Your task to perform on an android device: Do I have any events today? Image 0: 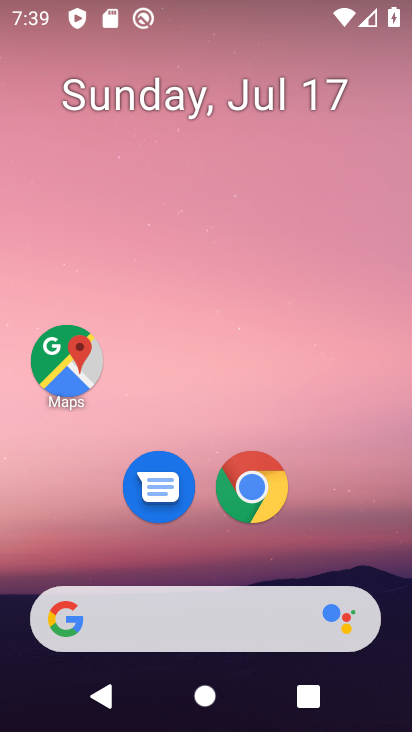
Step 0: drag from (175, 536) to (268, 39)
Your task to perform on an android device: Do I have any events today? Image 1: 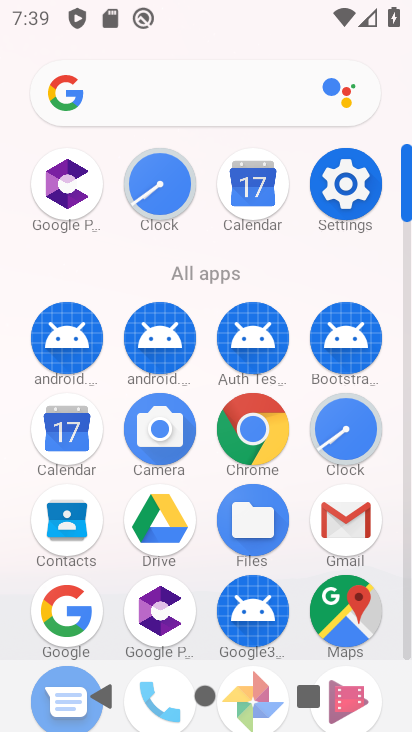
Step 1: click (76, 424)
Your task to perform on an android device: Do I have any events today? Image 2: 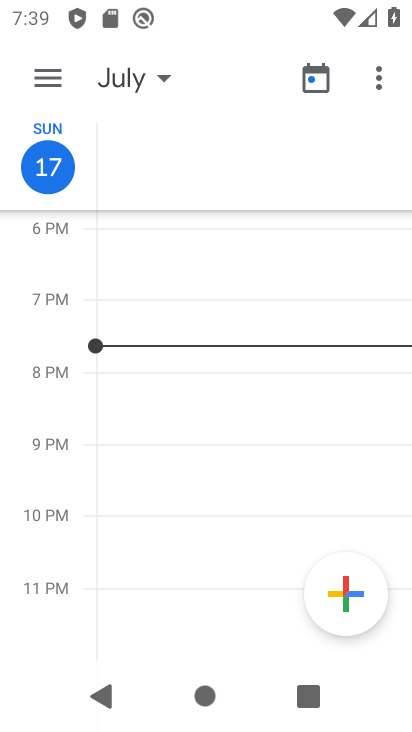
Step 2: click (45, 81)
Your task to perform on an android device: Do I have any events today? Image 3: 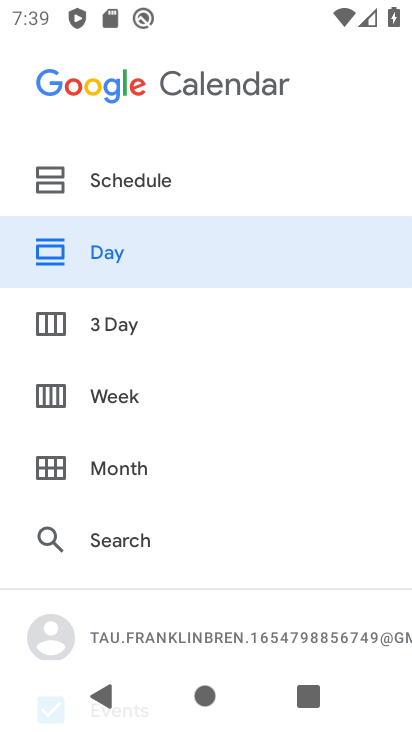
Step 3: click (101, 177)
Your task to perform on an android device: Do I have any events today? Image 4: 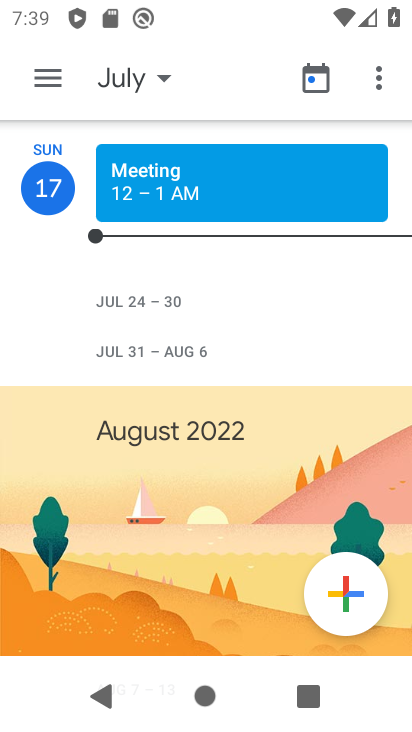
Step 4: task complete